Your task to perform on an android device: turn off wifi Image 0: 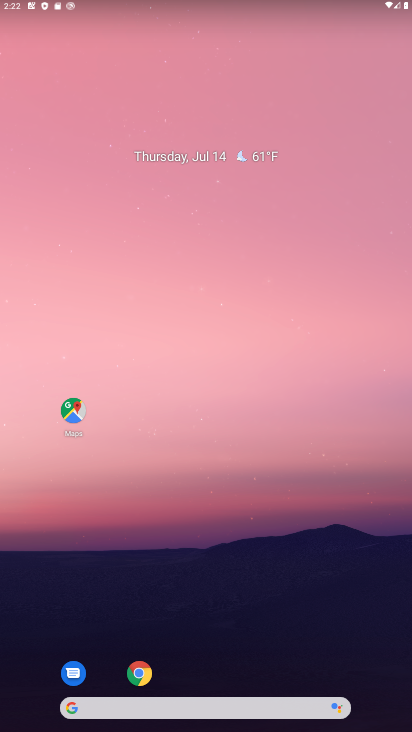
Step 0: drag from (161, 6) to (224, 470)
Your task to perform on an android device: turn off wifi Image 1: 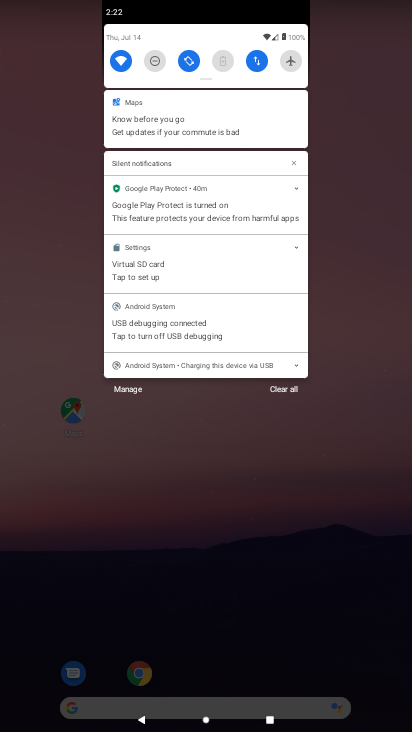
Step 1: click (118, 50)
Your task to perform on an android device: turn off wifi Image 2: 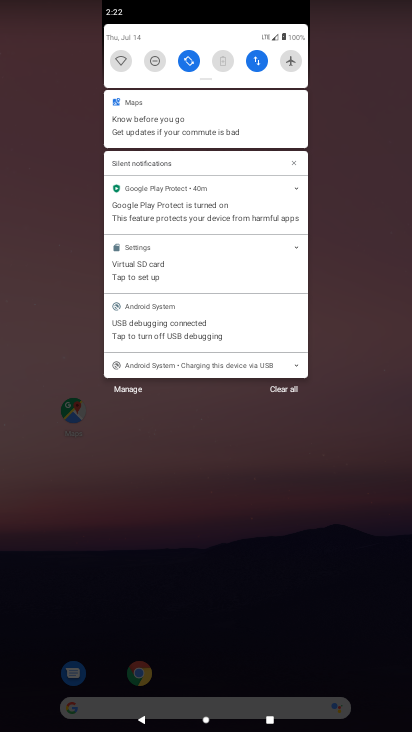
Step 2: task complete